Your task to perform on an android device: Open Google Chrome and open the bookmarks view Image 0: 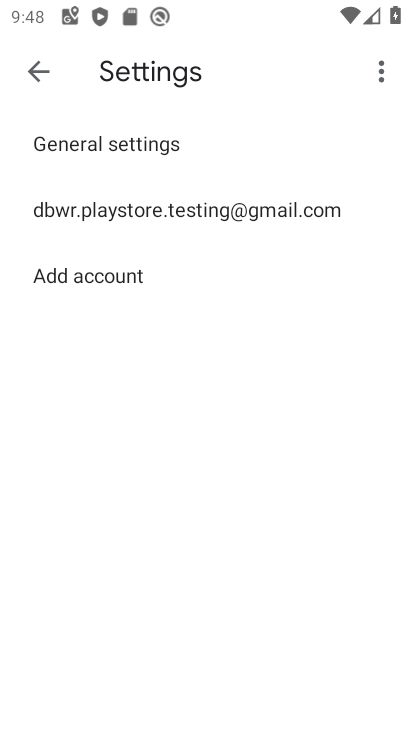
Step 0: press home button
Your task to perform on an android device: Open Google Chrome and open the bookmarks view Image 1: 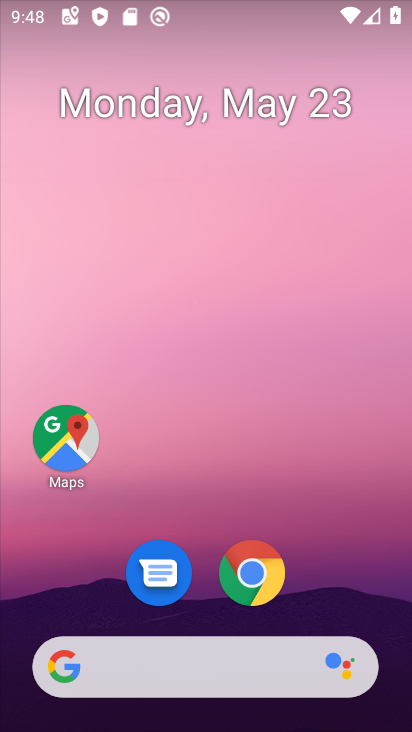
Step 1: drag from (378, 579) to (360, 39)
Your task to perform on an android device: Open Google Chrome and open the bookmarks view Image 2: 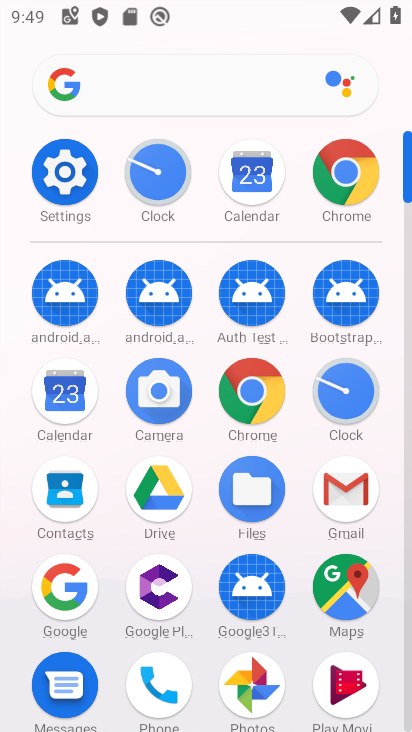
Step 2: click (245, 388)
Your task to perform on an android device: Open Google Chrome and open the bookmarks view Image 3: 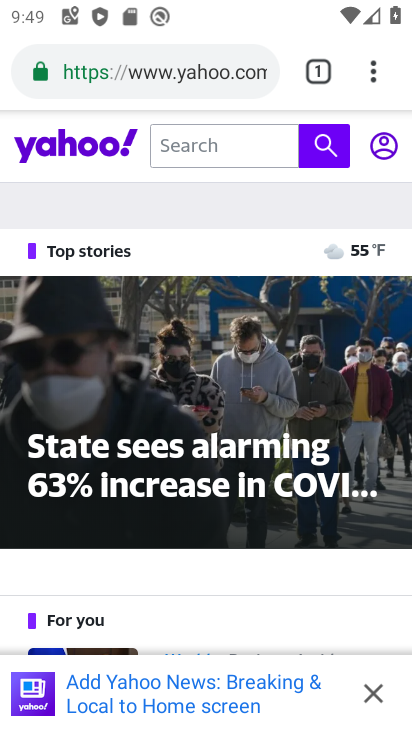
Step 3: click (373, 81)
Your task to perform on an android device: Open Google Chrome and open the bookmarks view Image 4: 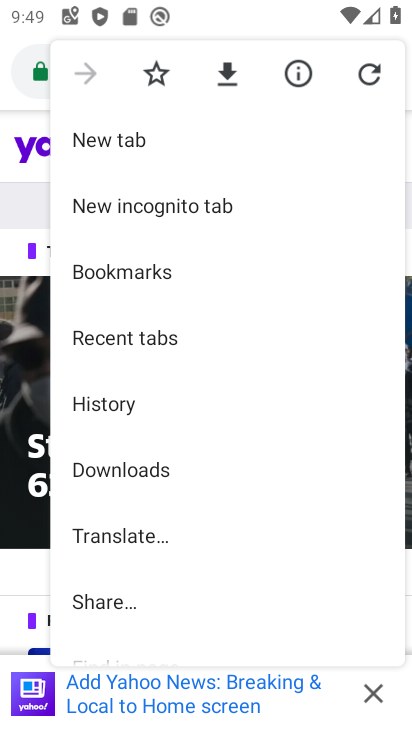
Step 4: click (181, 277)
Your task to perform on an android device: Open Google Chrome and open the bookmarks view Image 5: 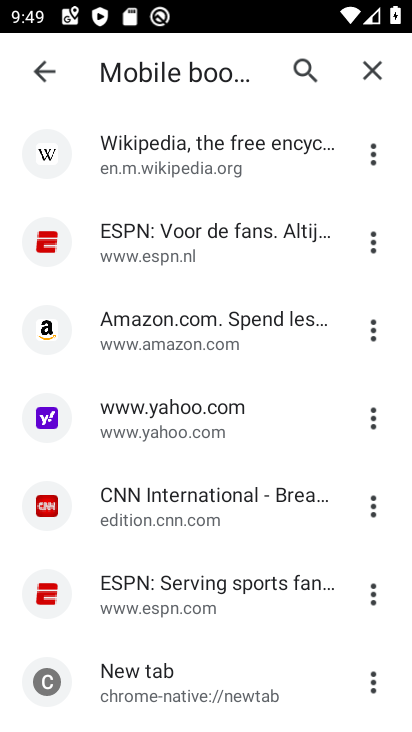
Step 5: task complete